Your task to perform on an android device: Set an alarm for 3pm Image 0: 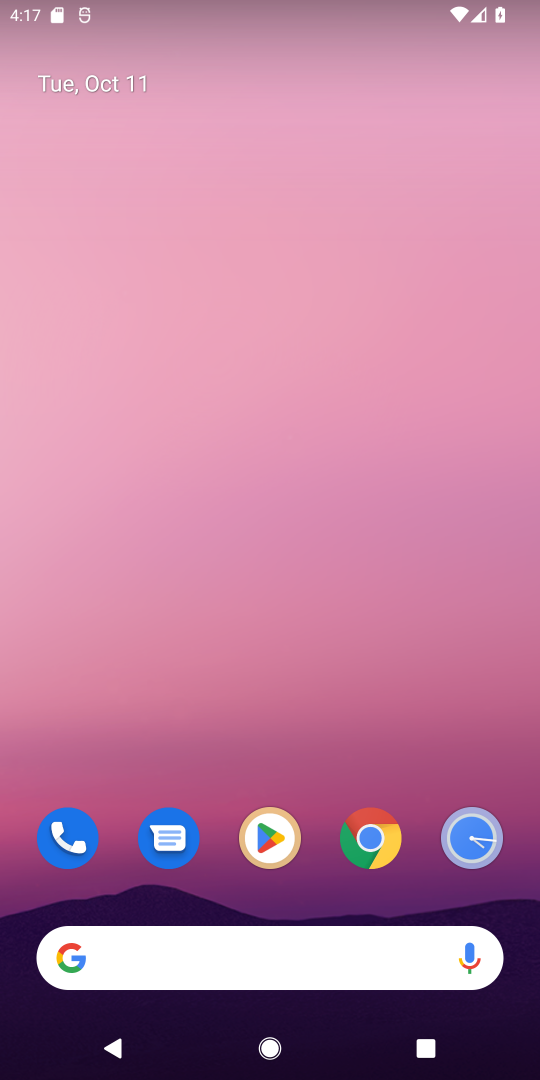
Step 0: drag from (370, 591) to (416, 305)
Your task to perform on an android device: Set an alarm for 3pm Image 1: 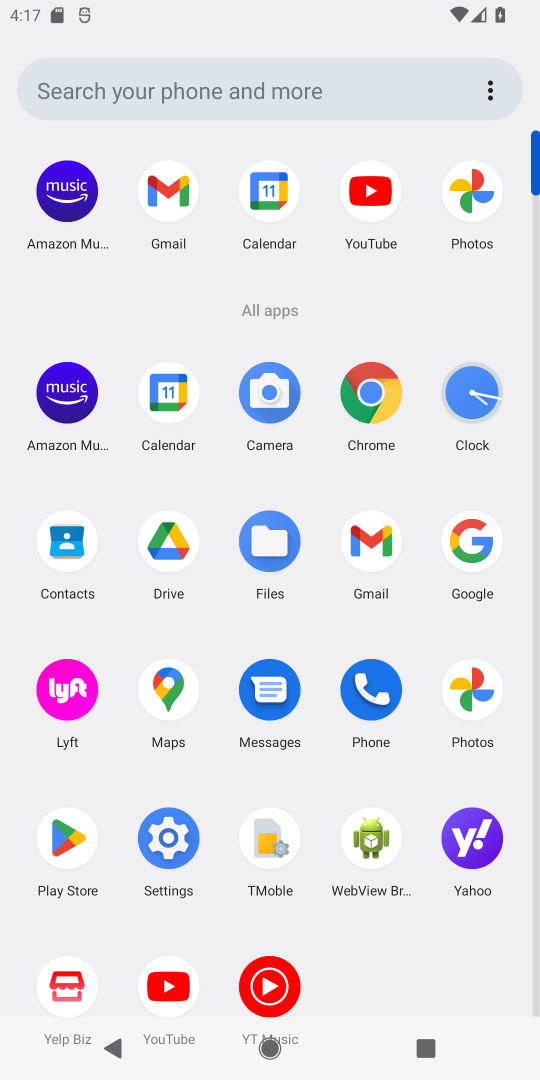
Step 1: click (475, 404)
Your task to perform on an android device: Set an alarm for 3pm Image 2: 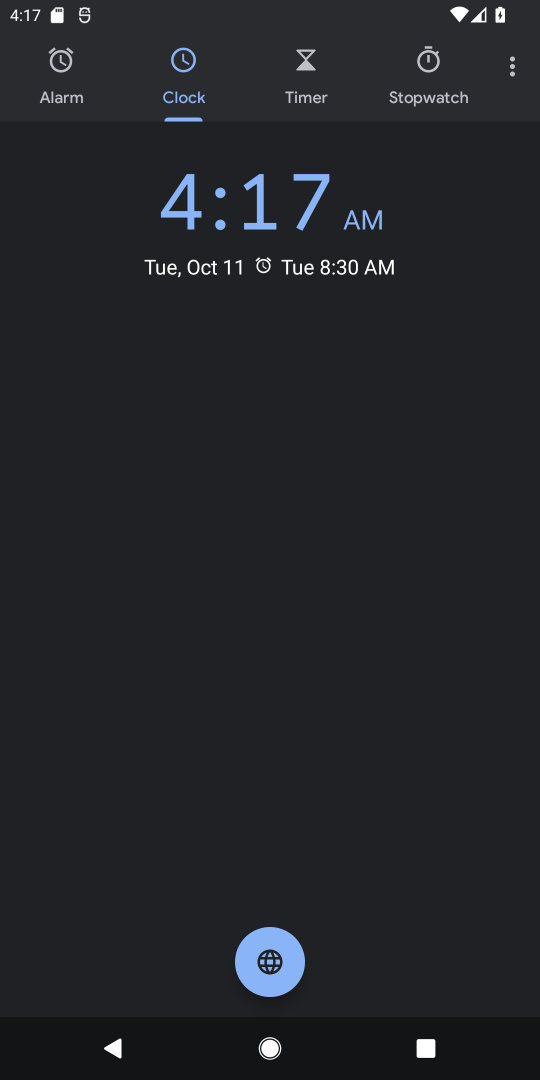
Step 2: click (61, 91)
Your task to perform on an android device: Set an alarm for 3pm Image 3: 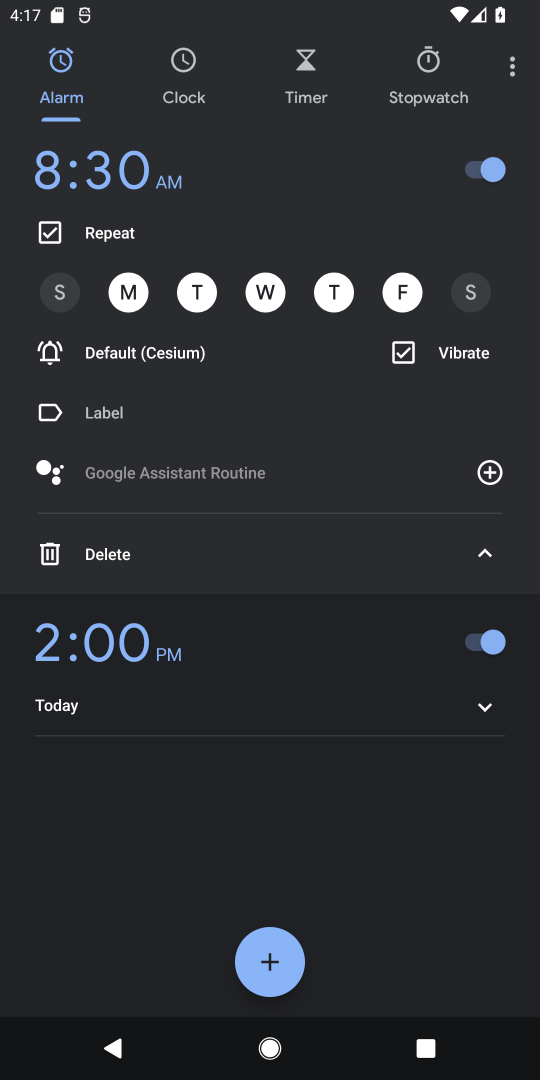
Step 3: click (475, 706)
Your task to perform on an android device: Set an alarm for 3pm Image 4: 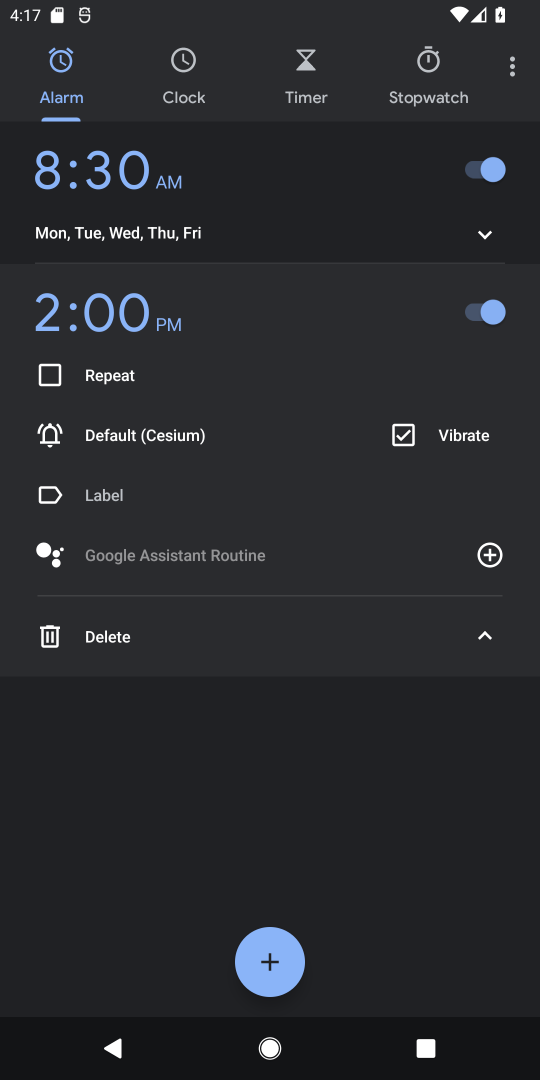
Step 4: click (178, 330)
Your task to perform on an android device: Set an alarm for 3pm Image 5: 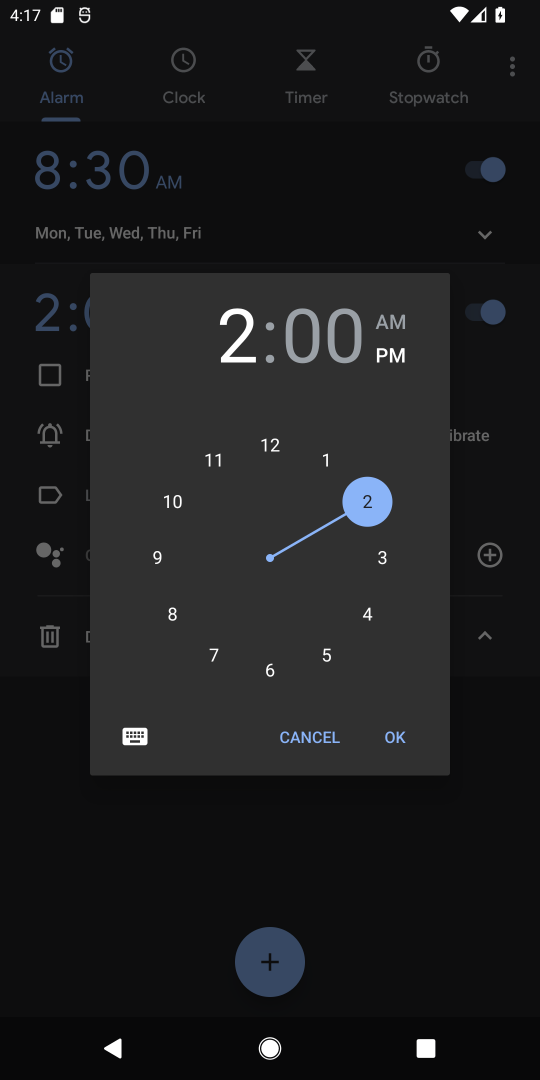
Step 5: click (375, 560)
Your task to perform on an android device: Set an alarm for 3pm Image 6: 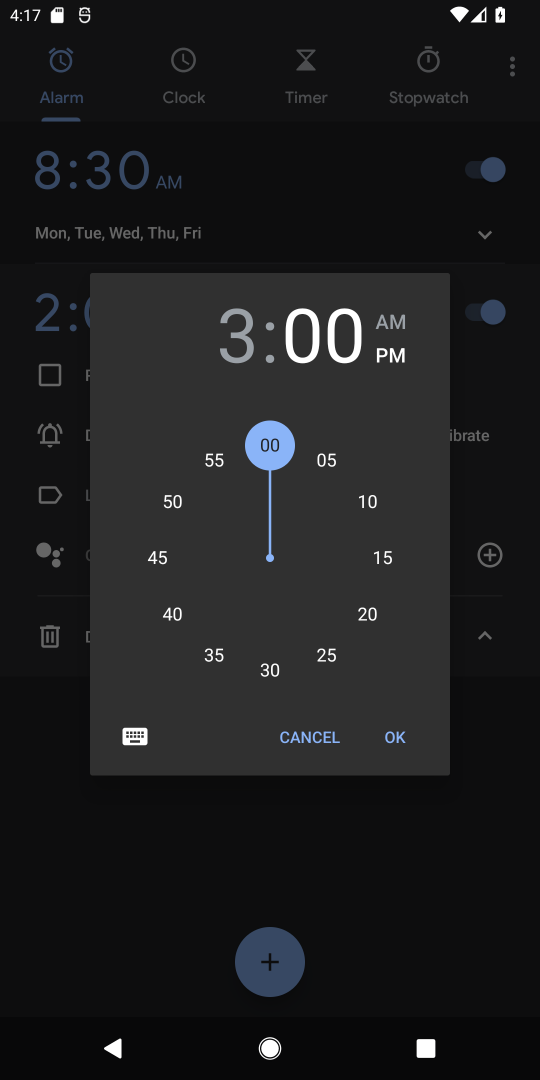
Step 6: click (378, 549)
Your task to perform on an android device: Set an alarm for 3pm Image 7: 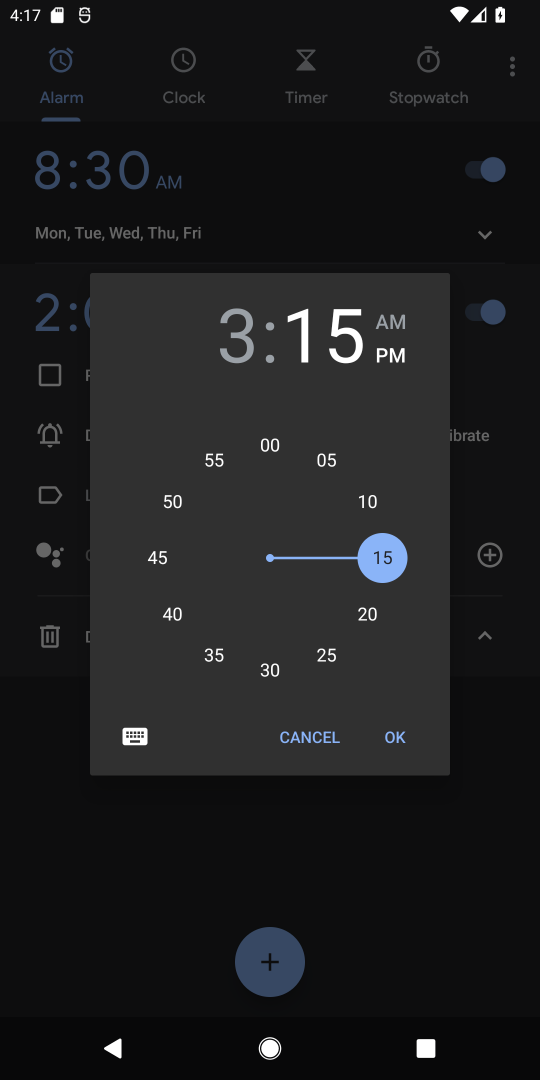
Step 7: click (274, 452)
Your task to perform on an android device: Set an alarm for 3pm Image 8: 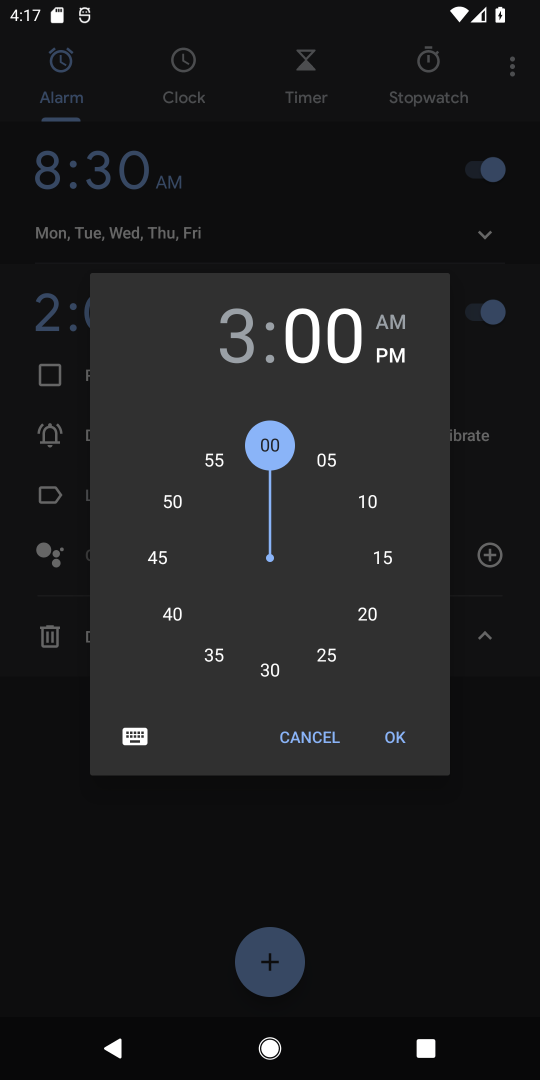
Step 8: click (394, 740)
Your task to perform on an android device: Set an alarm for 3pm Image 9: 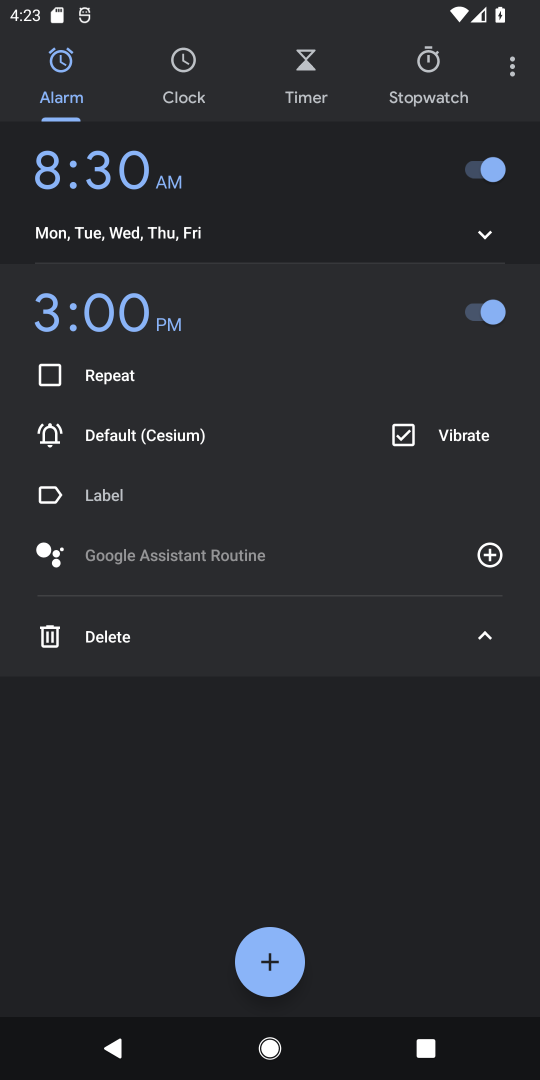
Step 9: task complete